Your task to perform on an android device: turn off priority inbox in the gmail app Image 0: 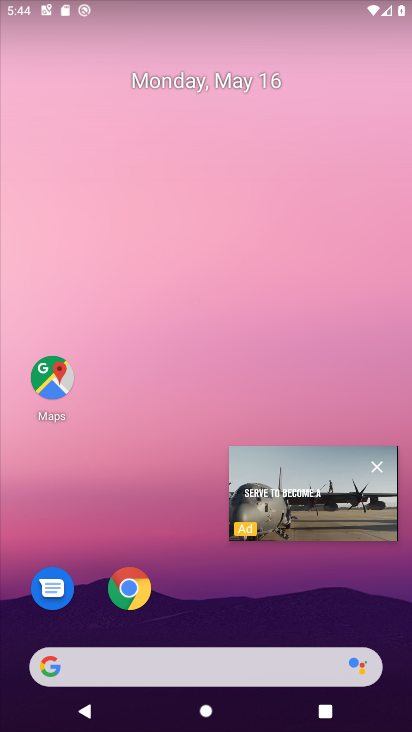
Step 0: drag from (155, 432) to (167, 98)
Your task to perform on an android device: turn off priority inbox in the gmail app Image 1: 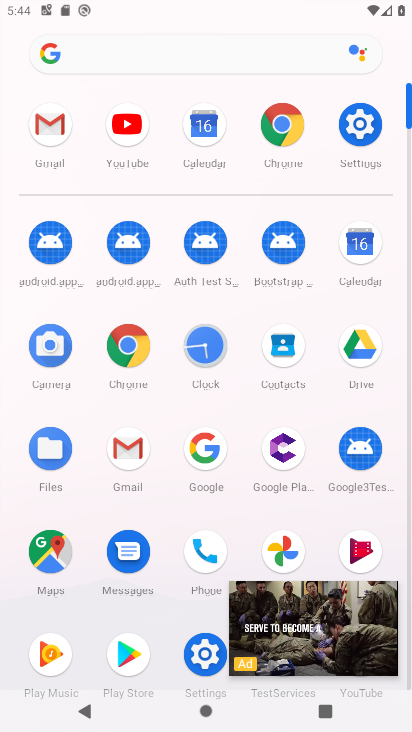
Step 1: click (133, 430)
Your task to perform on an android device: turn off priority inbox in the gmail app Image 2: 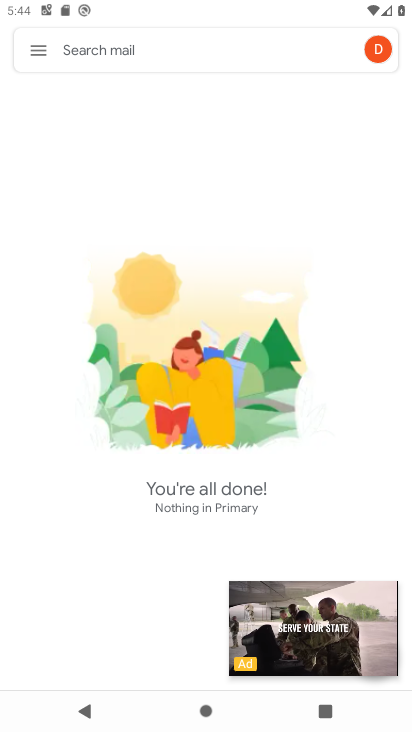
Step 2: click (41, 55)
Your task to perform on an android device: turn off priority inbox in the gmail app Image 3: 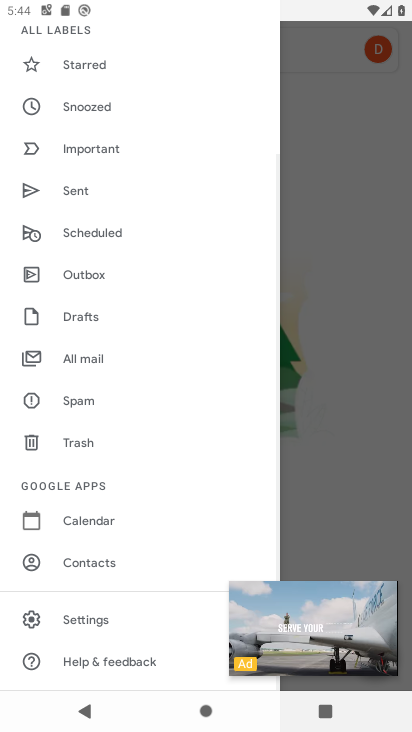
Step 3: click (93, 608)
Your task to perform on an android device: turn off priority inbox in the gmail app Image 4: 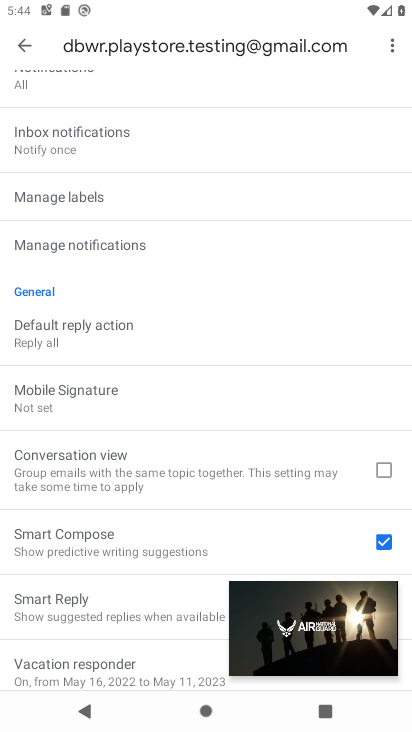
Step 4: click (108, 146)
Your task to perform on an android device: turn off priority inbox in the gmail app Image 5: 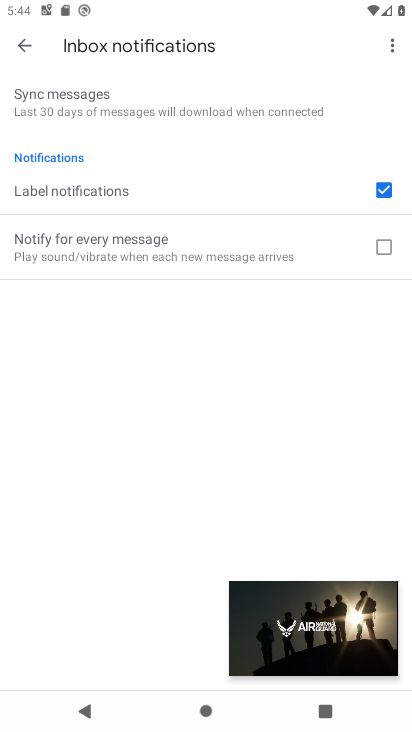
Step 5: press back button
Your task to perform on an android device: turn off priority inbox in the gmail app Image 6: 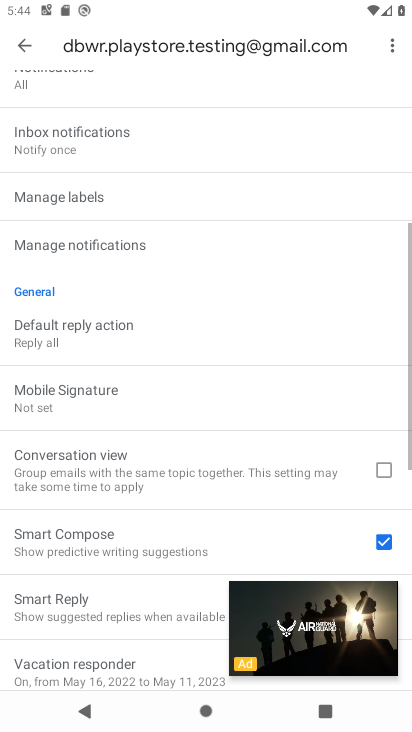
Step 6: drag from (156, 161) to (76, 635)
Your task to perform on an android device: turn off priority inbox in the gmail app Image 7: 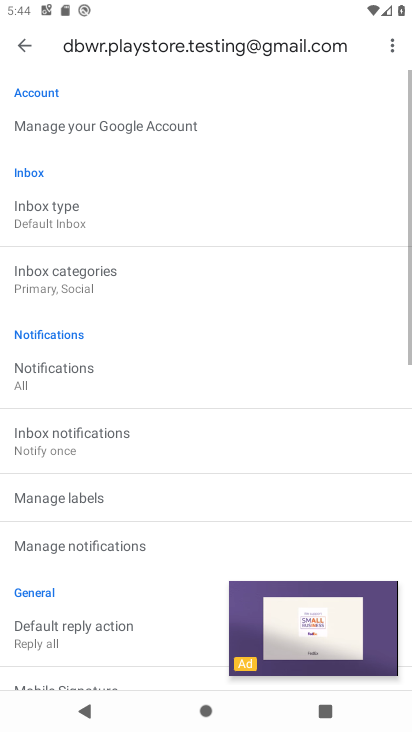
Step 7: click (56, 209)
Your task to perform on an android device: turn off priority inbox in the gmail app Image 8: 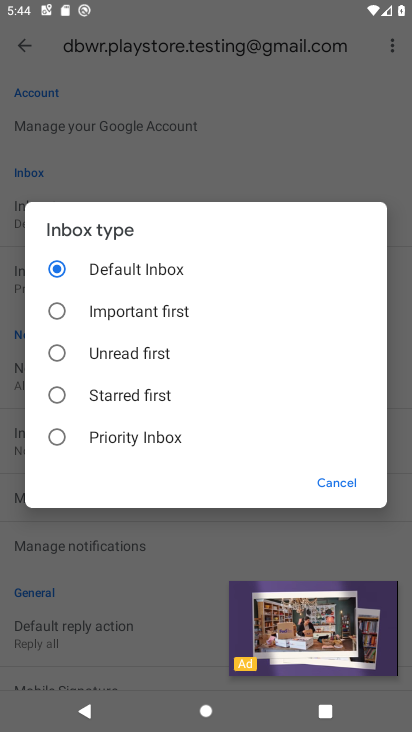
Step 8: task complete